Your task to perform on an android device: Open CNN.com Image 0: 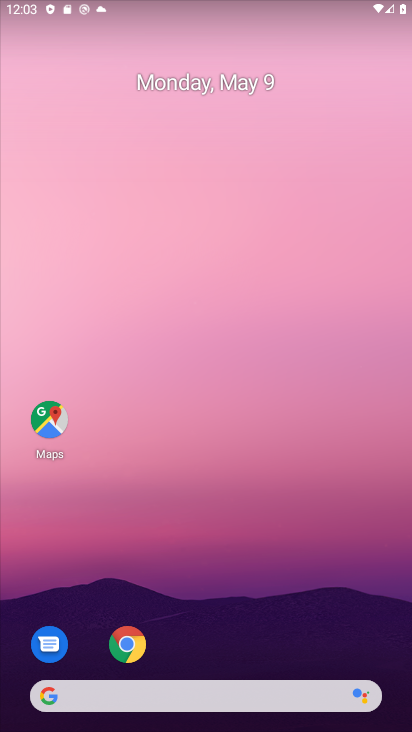
Step 0: click (118, 651)
Your task to perform on an android device: Open CNN.com Image 1: 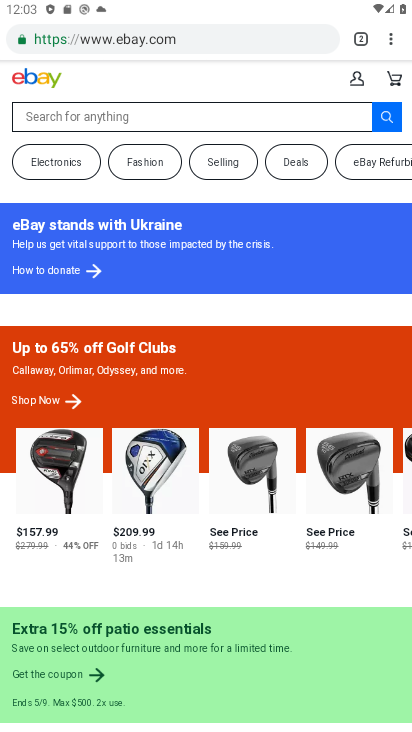
Step 1: click (211, 36)
Your task to perform on an android device: Open CNN.com Image 2: 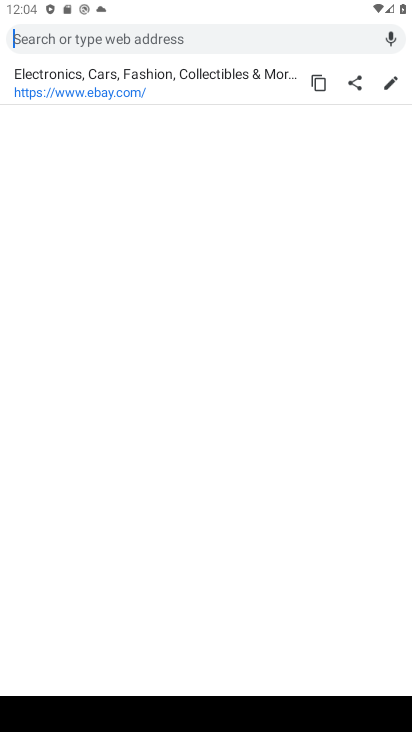
Step 2: type "cnn.com"
Your task to perform on an android device: Open CNN.com Image 3: 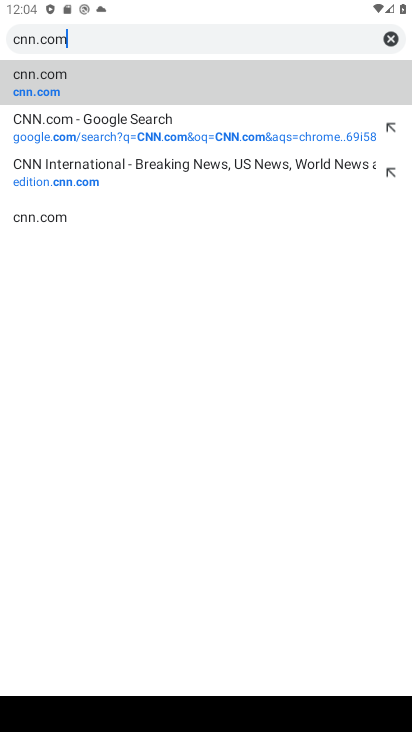
Step 3: click (67, 87)
Your task to perform on an android device: Open CNN.com Image 4: 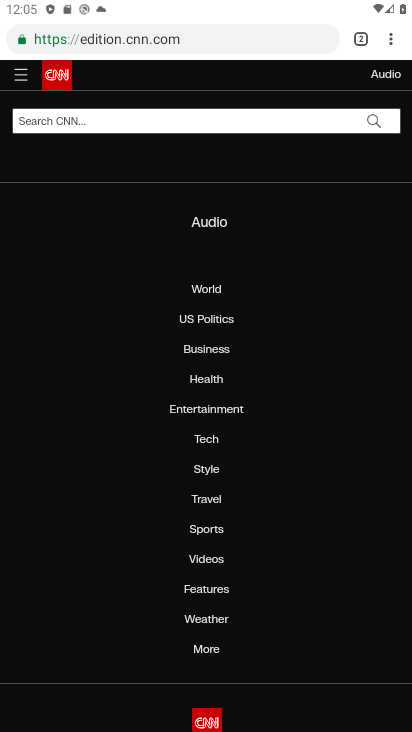
Step 4: task complete